Your task to perform on an android device: Go to sound settings Image 0: 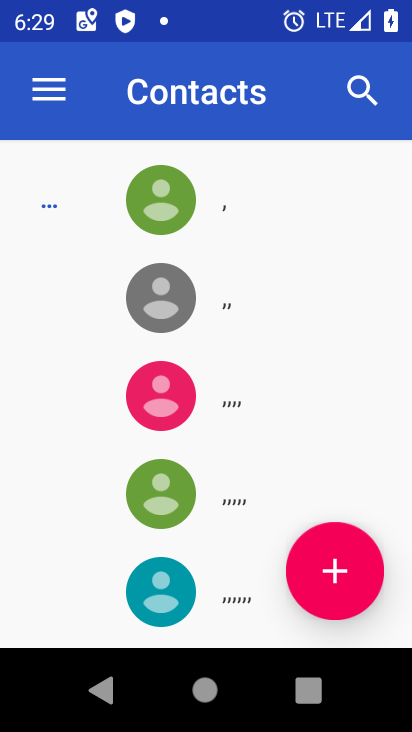
Step 0: press home button
Your task to perform on an android device: Go to sound settings Image 1: 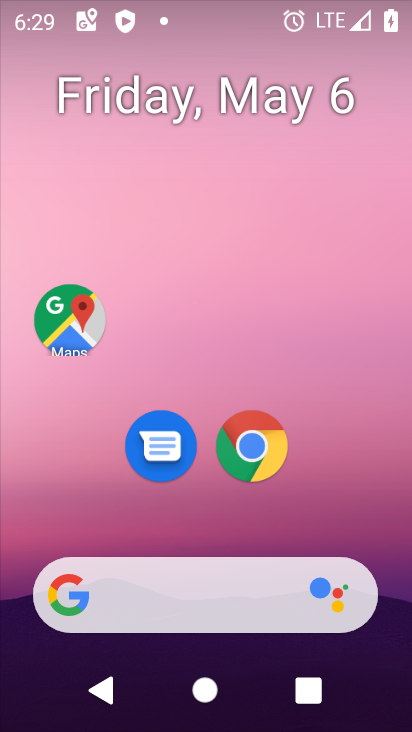
Step 1: drag from (335, 530) to (308, 172)
Your task to perform on an android device: Go to sound settings Image 2: 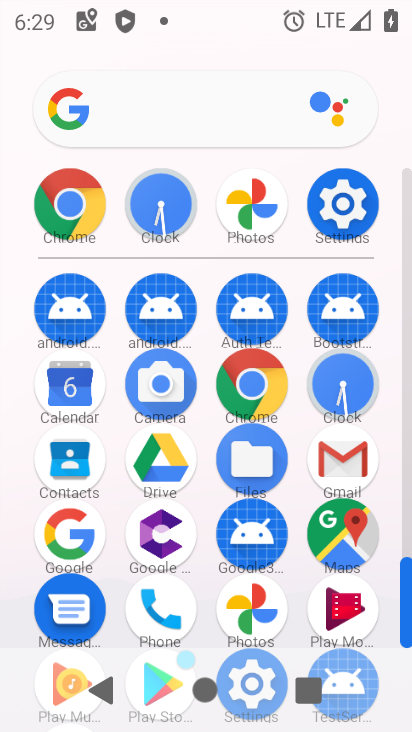
Step 2: click (339, 205)
Your task to perform on an android device: Go to sound settings Image 3: 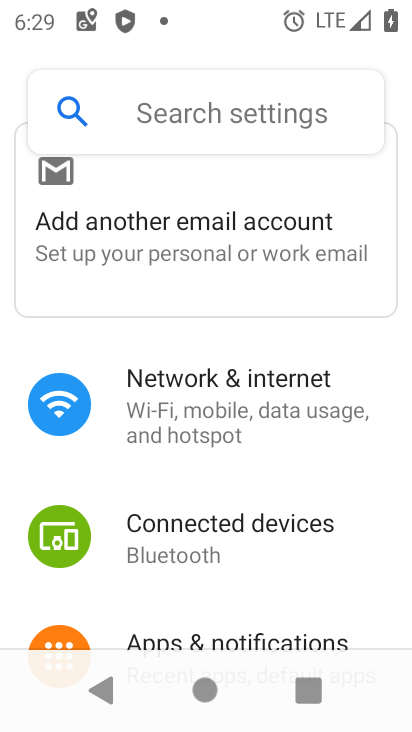
Step 3: drag from (202, 598) to (205, 265)
Your task to perform on an android device: Go to sound settings Image 4: 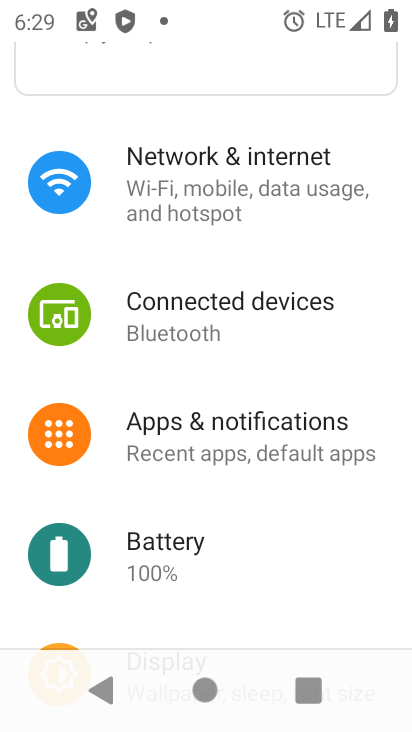
Step 4: drag from (212, 543) to (215, 234)
Your task to perform on an android device: Go to sound settings Image 5: 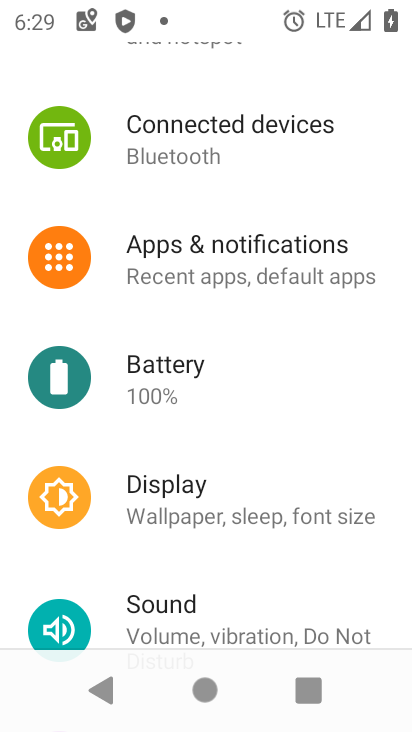
Step 5: click (191, 624)
Your task to perform on an android device: Go to sound settings Image 6: 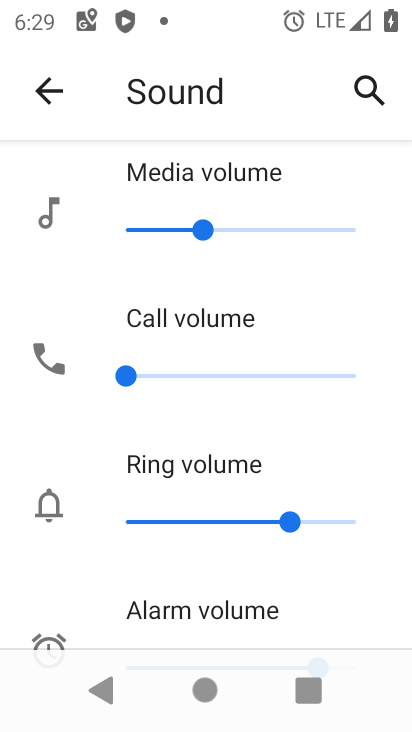
Step 6: task complete